Your task to perform on an android device: Turn on the flashlight Image 0: 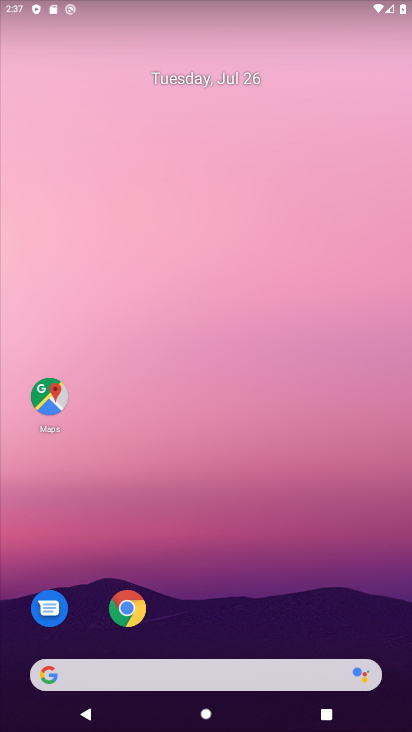
Step 0: drag from (173, 566) to (188, 16)
Your task to perform on an android device: Turn on the flashlight Image 1: 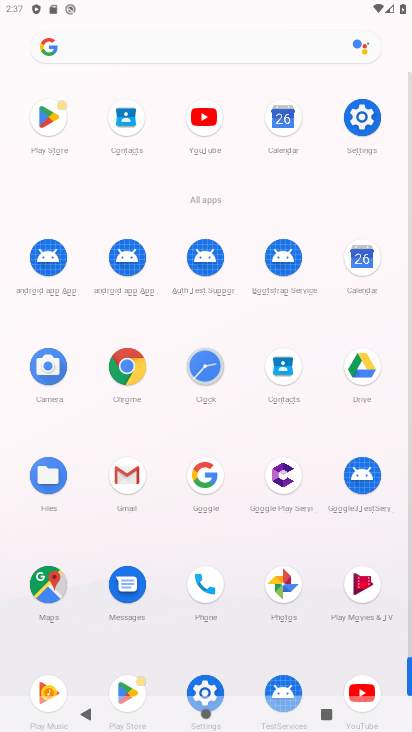
Step 1: click (360, 132)
Your task to perform on an android device: Turn on the flashlight Image 2: 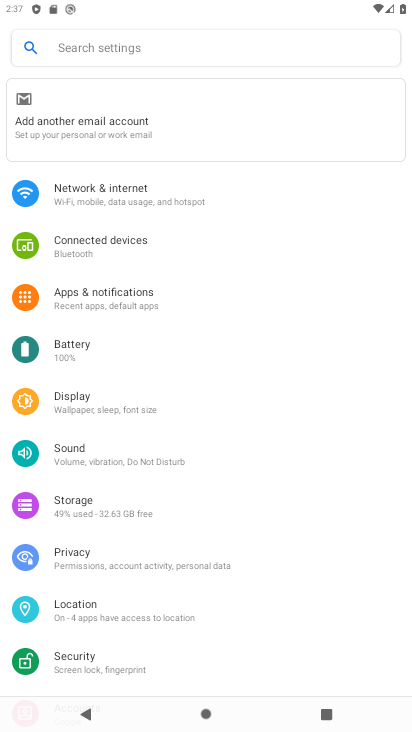
Step 2: click (170, 50)
Your task to perform on an android device: Turn on the flashlight Image 3: 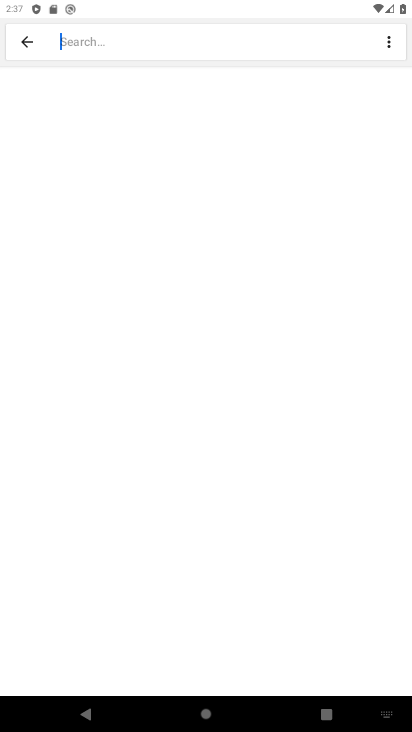
Step 3: type "flashlight"
Your task to perform on an android device: Turn on the flashlight Image 4: 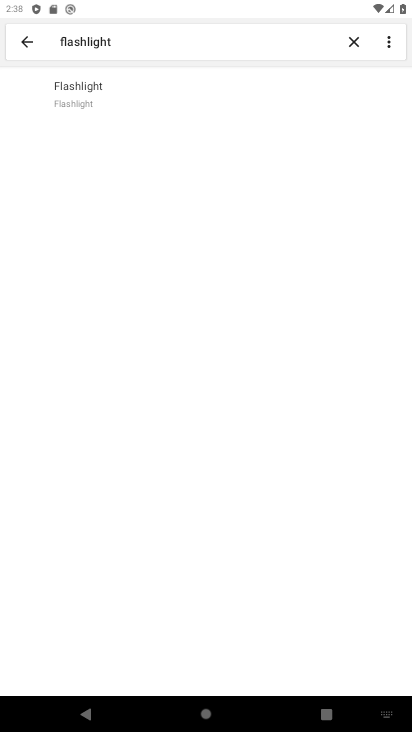
Step 4: click (103, 88)
Your task to perform on an android device: Turn on the flashlight Image 5: 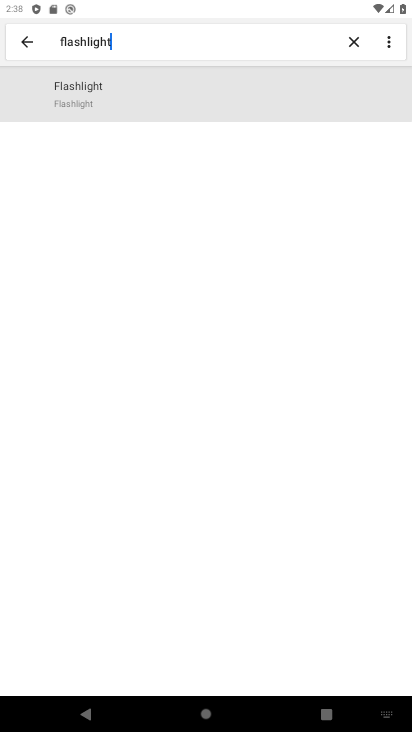
Step 5: click (103, 88)
Your task to perform on an android device: Turn on the flashlight Image 6: 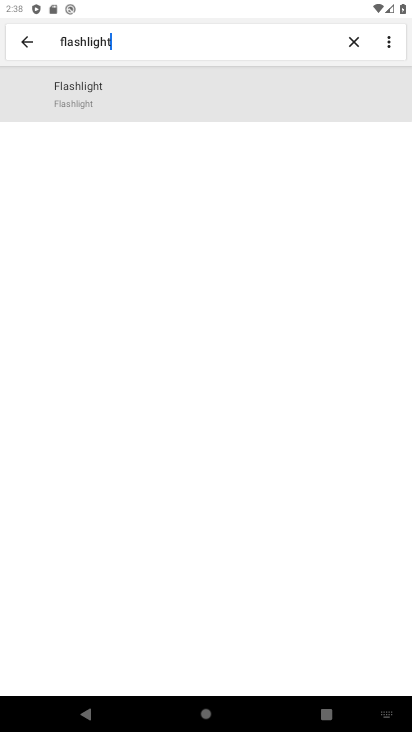
Step 6: click (103, 88)
Your task to perform on an android device: Turn on the flashlight Image 7: 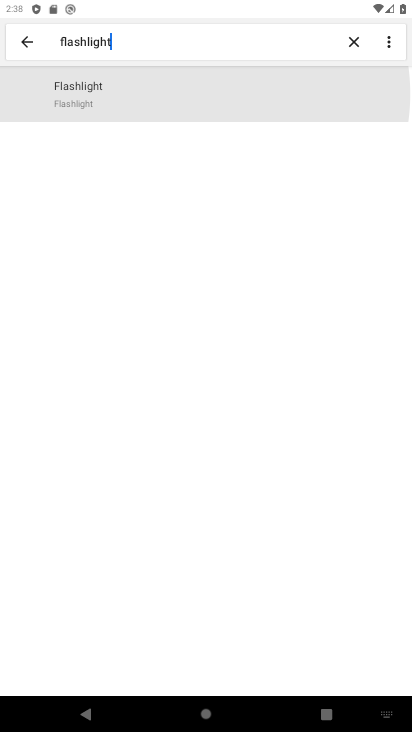
Step 7: click (104, 88)
Your task to perform on an android device: Turn on the flashlight Image 8: 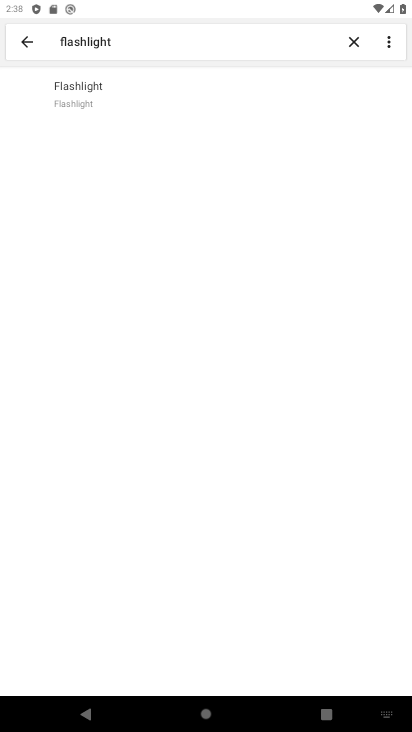
Step 8: task complete